Your task to perform on an android device: toggle notification dots Image 0: 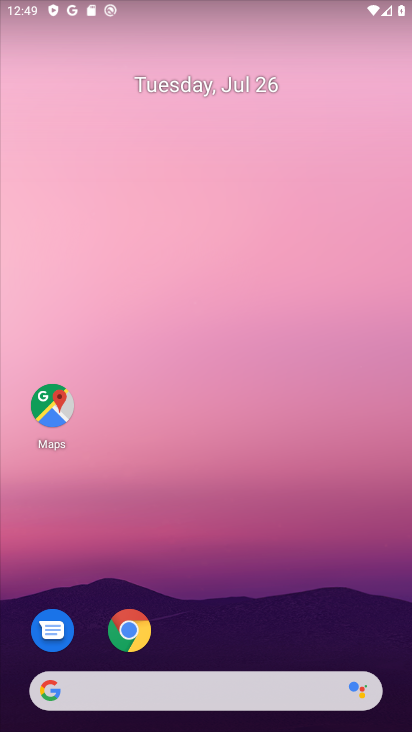
Step 0: drag from (280, 617) to (283, 14)
Your task to perform on an android device: toggle notification dots Image 1: 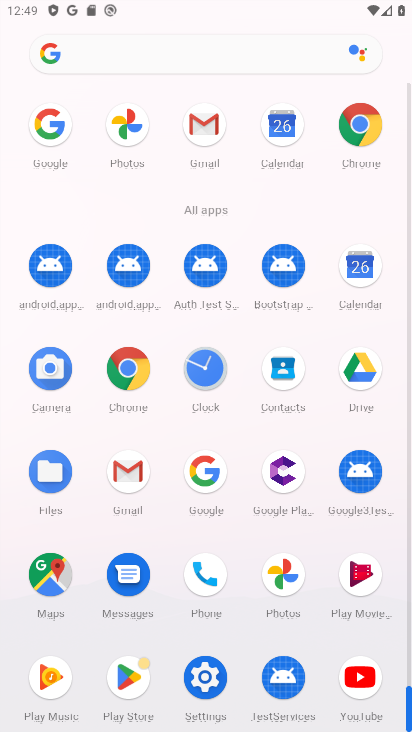
Step 1: click (191, 679)
Your task to perform on an android device: toggle notification dots Image 2: 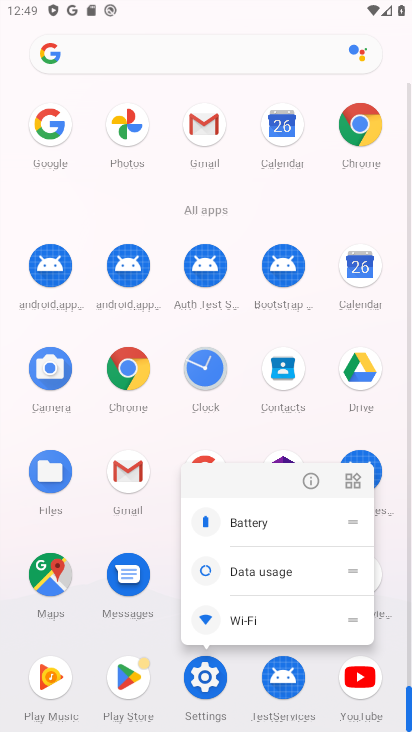
Step 2: click (191, 678)
Your task to perform on an android device: toggle notification dots Image 3: 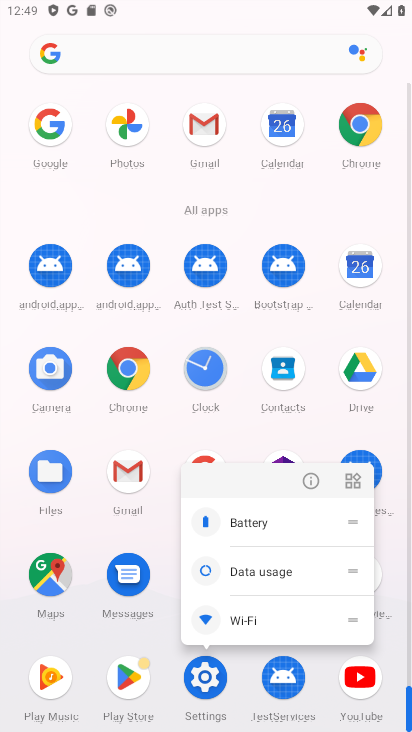
Step 3: click (191, 678)
Your task to perform on an android device: toggle notification dots Image 4: 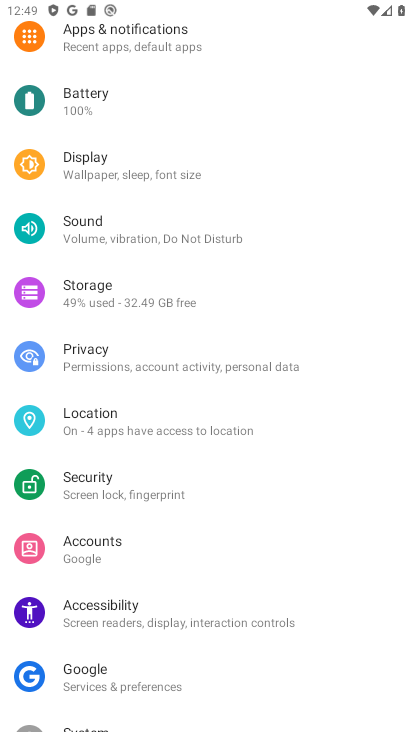
Step 4: drag from (181, 154) to (260, 649)
Your task to perform on an android device: toggle notification dots Image 5: 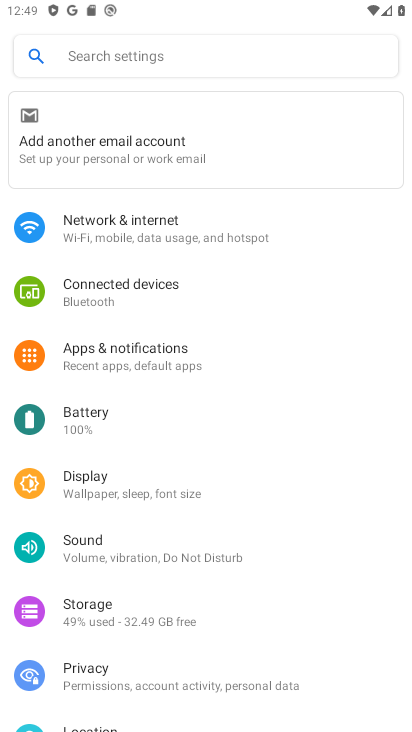
Step 5: click (138, 356)
Your task to perform on an android device: toggle notification dots Image 6: 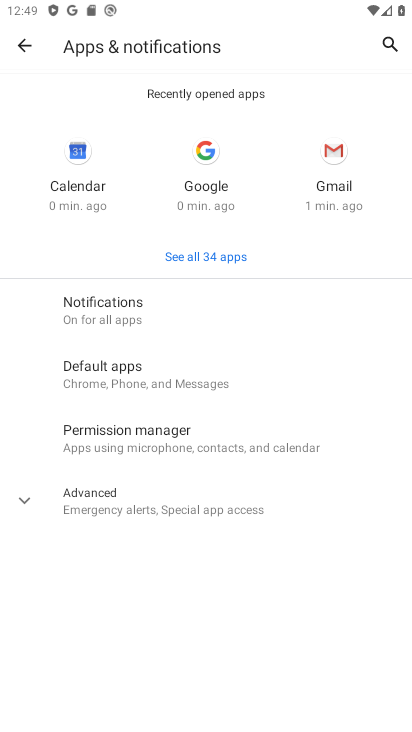
Step 6: click (90, 315)
Your task to perform on an android device: toggle notification dots Image 7: 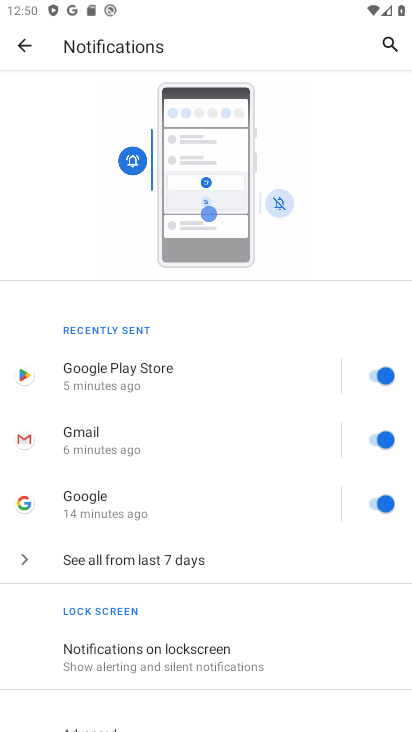
Step 7: drag from (218, 585) to (250, 121)
Your task to perform on an android device: toggle notification dots Image 8: 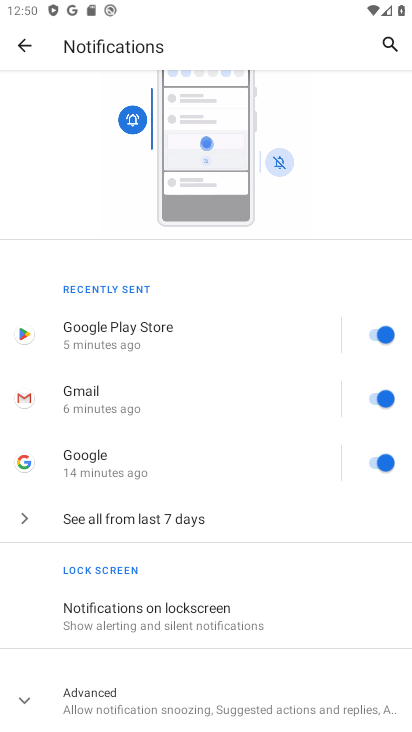
Step 8: drag from (197, 658) to (178, 253)
Your task to perform on an android device: toggle notification dots Image 9: 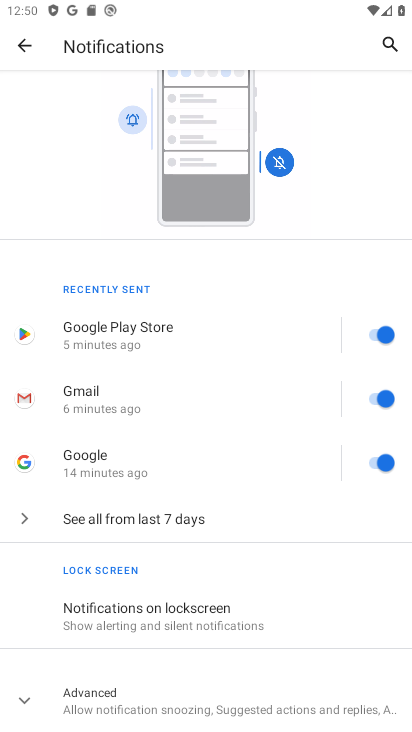
Step 9: click (166, 704)
Your task to perform on an android device: toggle notification dots Image 10: 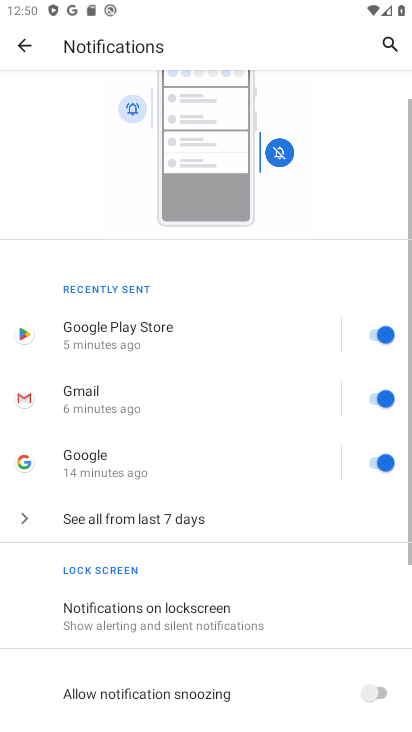
Step 10: drag from (197, 423) to (193, 64)
Your task to perform on an android device: toggle notification dots Image 11: 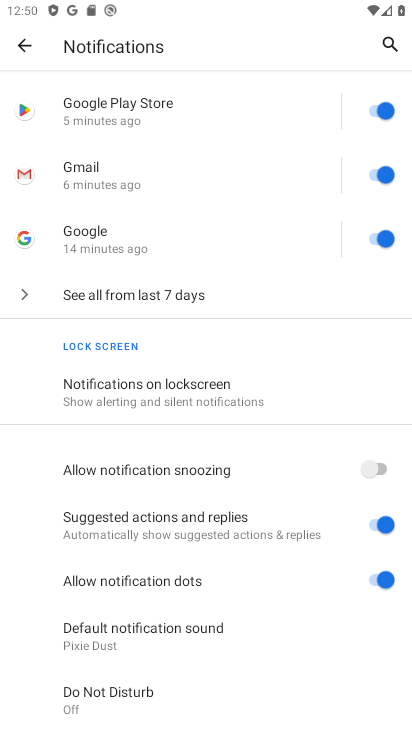
Step 11: drag from (194, 661) to (191, 157)
Your task to perform on an android device: toggle notification dots Image 12: 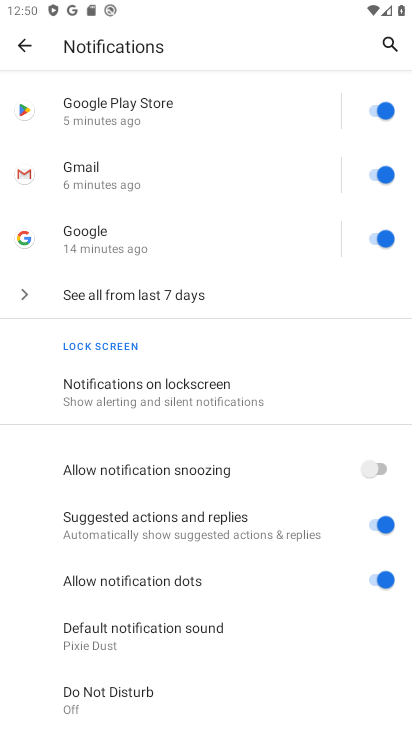
Step 12: click (379, 583)
Your task to perform on an android device: toggle notification dots Image 13: 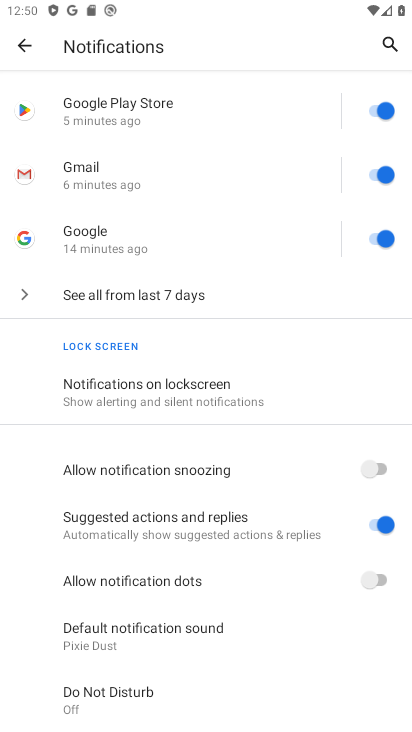
Step 13: task complete